Your task to perform on an android device: toggle airplane mode Image 0: 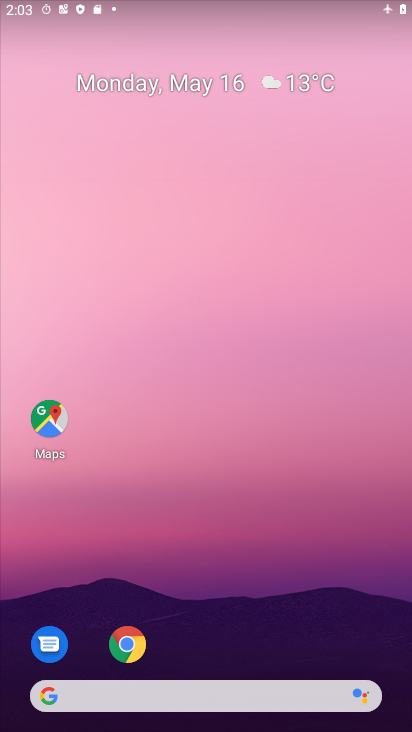
Step 0: drag from (207, 627) to (214, 114)
Your task to perform on an android device: toggle airplane mode Image 1: 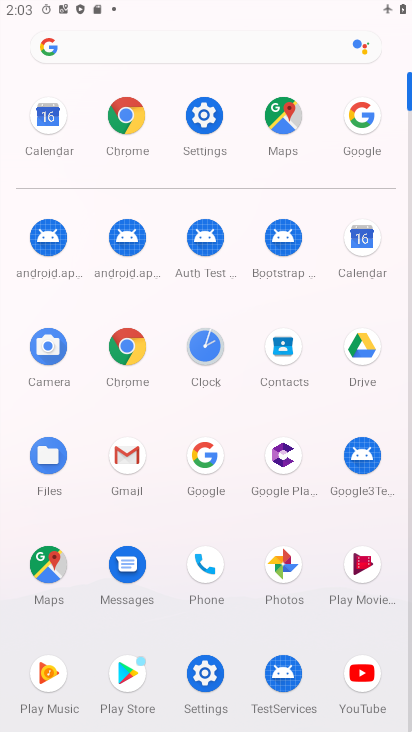
Step 1: click (204, 146)
Your task to perform on an android device: toggle airplane mode Image 2: 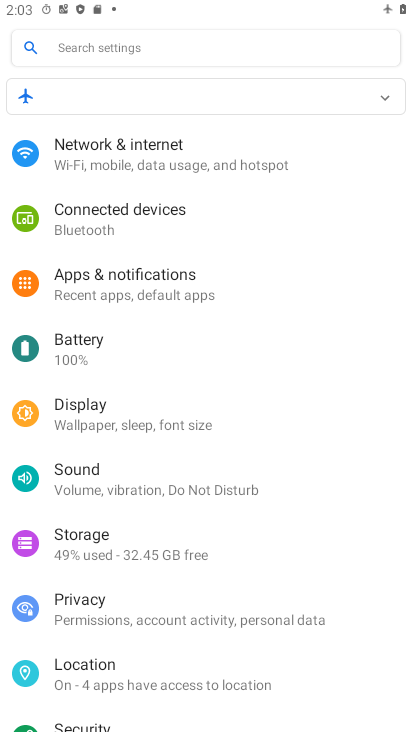
Step 2: click (193, 149)
Your task to perform on an android device: toggle airplane mode Image 3: 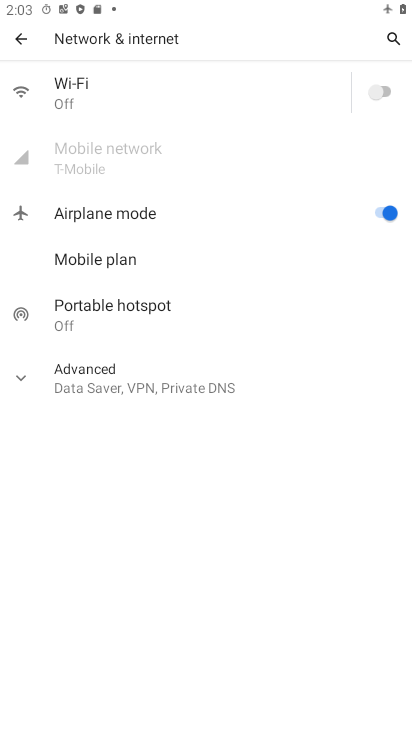
Step 3: click (382, 210)
Your task to perform on an android device: toggle airplane mode Image 4: 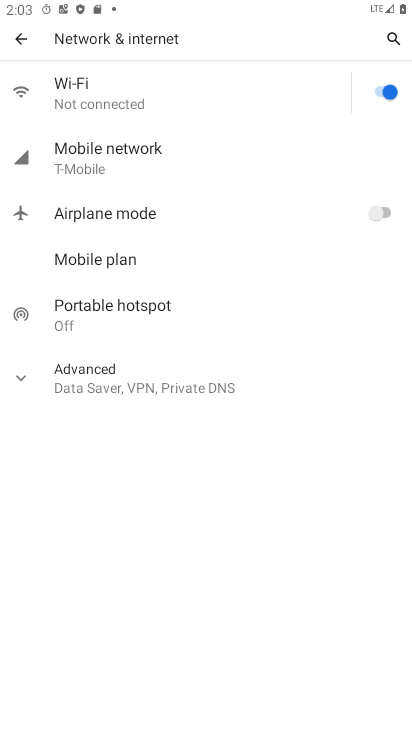
Step 4: task complete